Your task to perform on an android device: open chrome and create a bookmark for the current page Image 0: 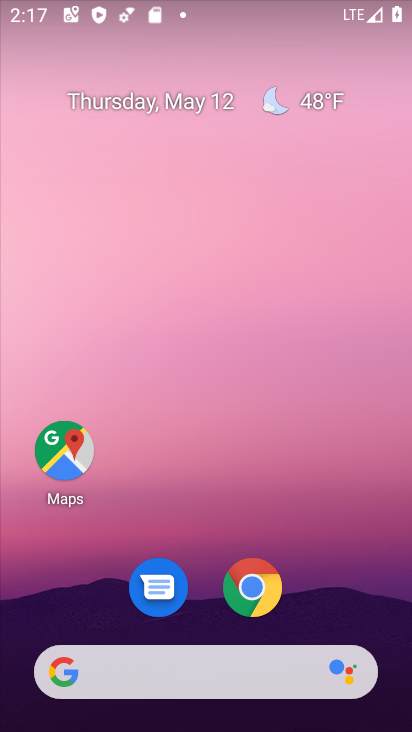
Step 0: drag from (341, 603) to (200, 22)
Your task to perform on an android device: open chrome and create a bookmark for the current page Image 1: 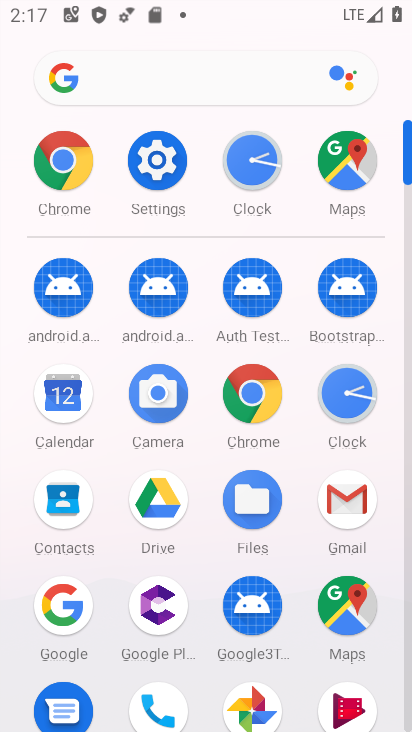
Step 1: click (259, 414)
Your task to perform on an android device: open chrome and create a bookmark for the current page Image 2: 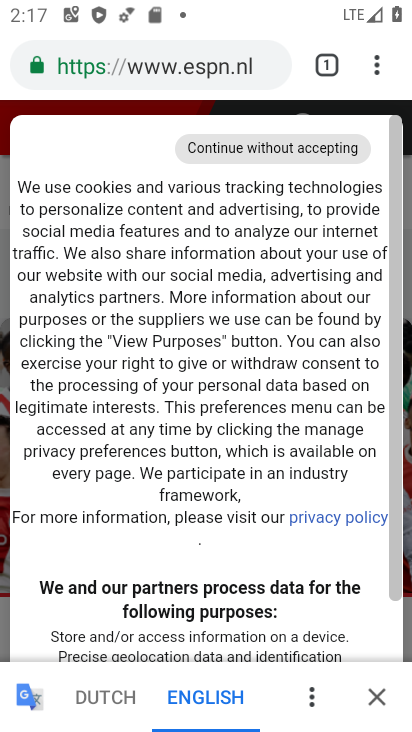
Step 2: click (234, 73)
Your task to perform on an android device: open chrome and create a bookmark for the current page Image 3: 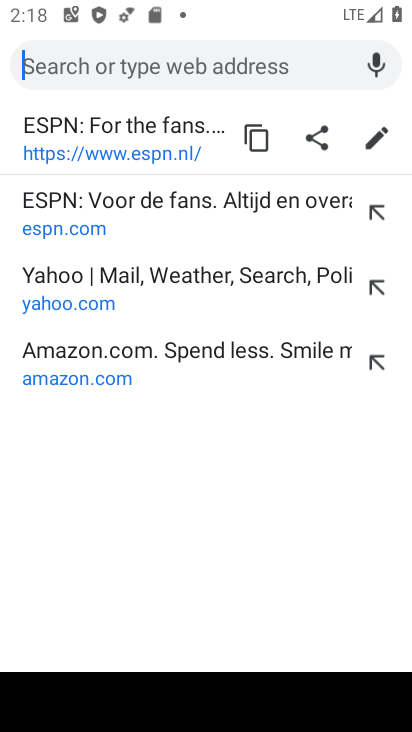
Step 3: type "ghool"
Your task to perform on an android device: open chrome and create a bookmark for the current page Image 4: 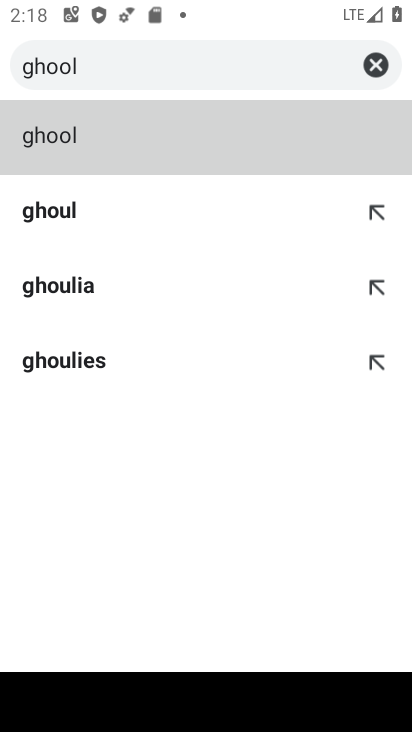
Step 4: click (139, 209)
Your task to perform on an android device: open chrome and create a bookmark for the current page Image 5: 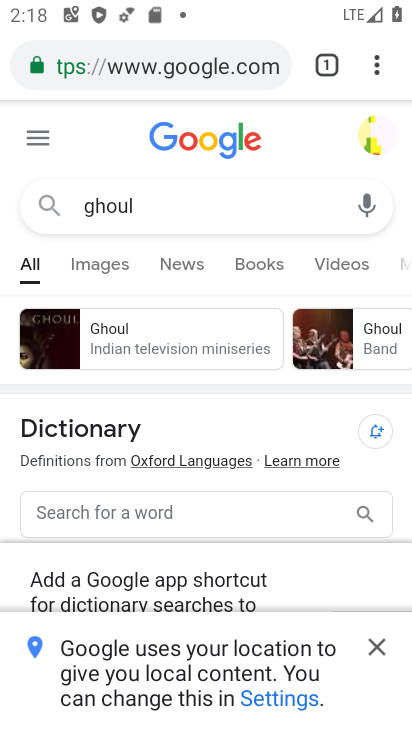
Step 5: drag from (150, 549) to (124, 338)
Your task to perform on an android device: open chrome and create a bookmark for the current page Image 6: 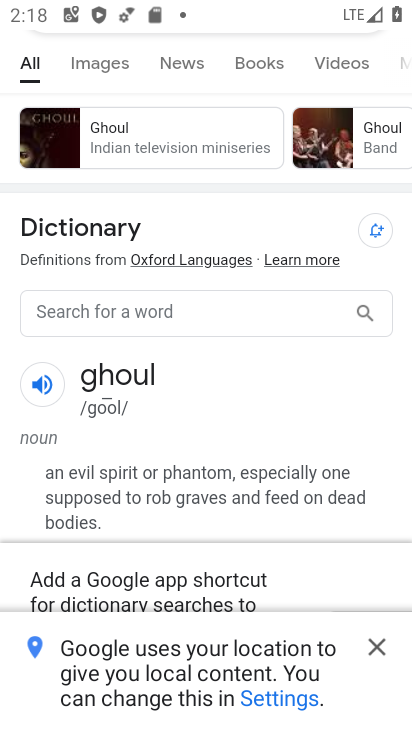
Step 6: drag from (159, 447) to (202, 93)
Your task to perform on an android device: open chrome and create a bookmark for the current page Image 7: 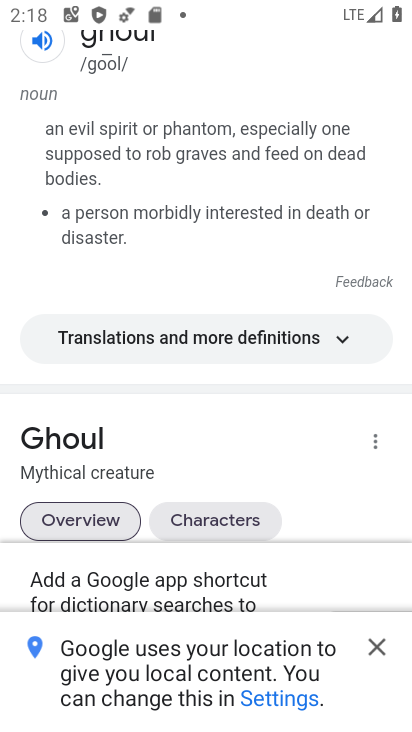
Step 7: drag from (151, 363) to (230, 110)
Your task to perform on an android device: open chrome and create a bookmark for the current page Image 8: 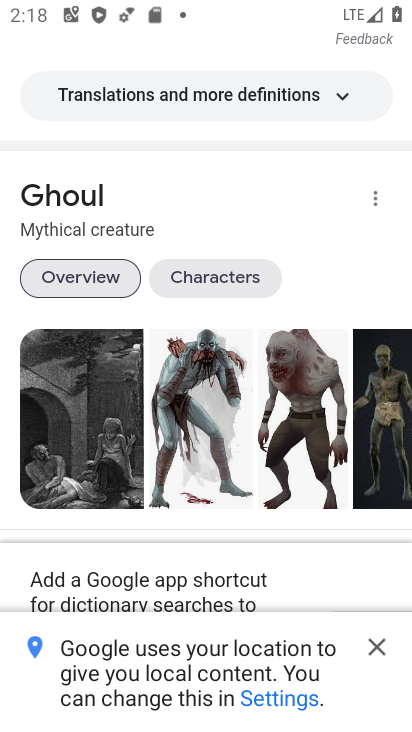
Step 8: drag from (181, 429) to (251, 64)
Your task to perform on an android device: open chrome and create a bookmark for the current page Image 9: 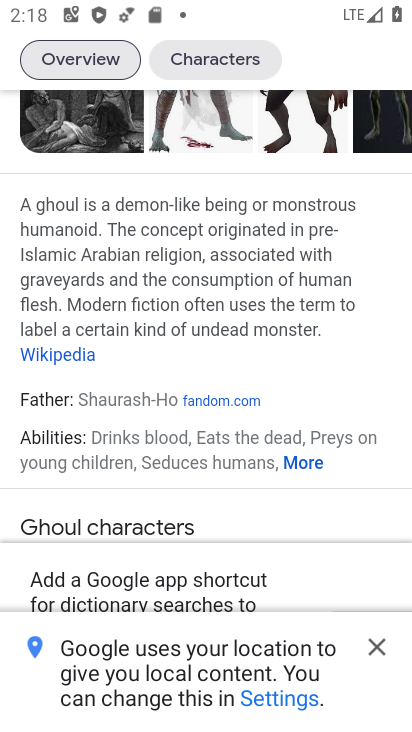
Step 9: drag from (160, 411) to (197, 144)
Your task to perform on an android device: open chrome and create a bookmark for the current page Image 10: 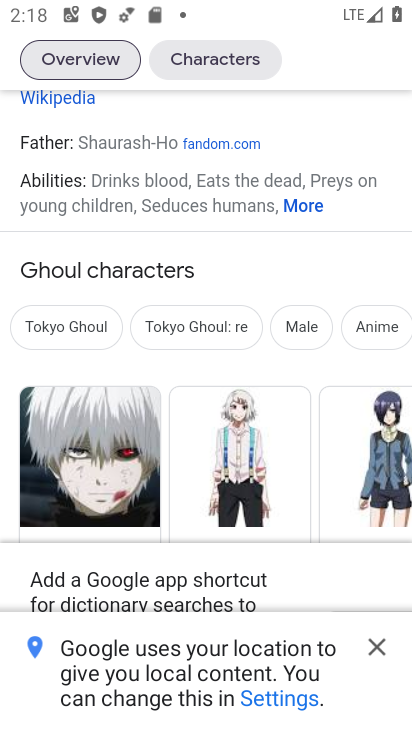
Step 10: drag from (162, 457) to (233, 118)
Your task to perform on an android device: open chrome and create a bookmark for the current page Image 11: 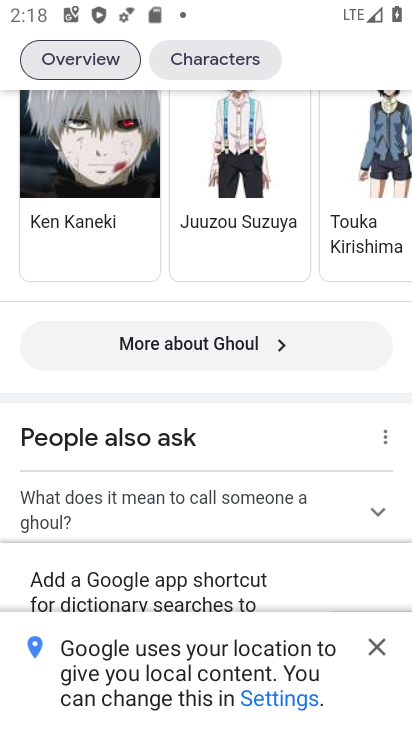
Step 11: drag from (154, 387) to (223, 68)
Your task to perform on an android device: open chrome and create a bookmark for the current page Image 12: 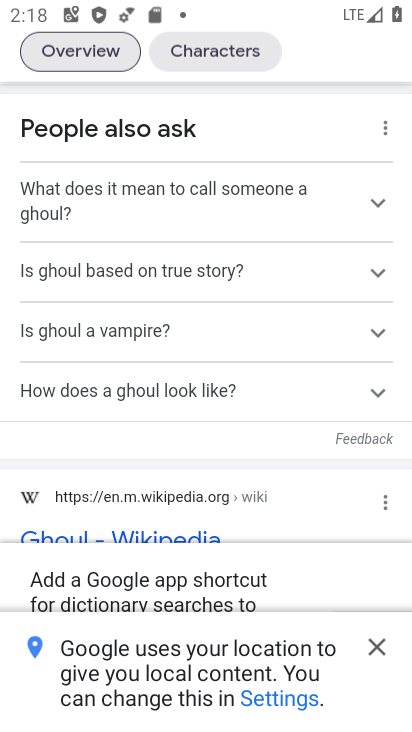
Step 12: drag from (181, 425) to (210, 205)
Your task to perform on an android device: open chrome and create a bookmark for the current page Image 13: 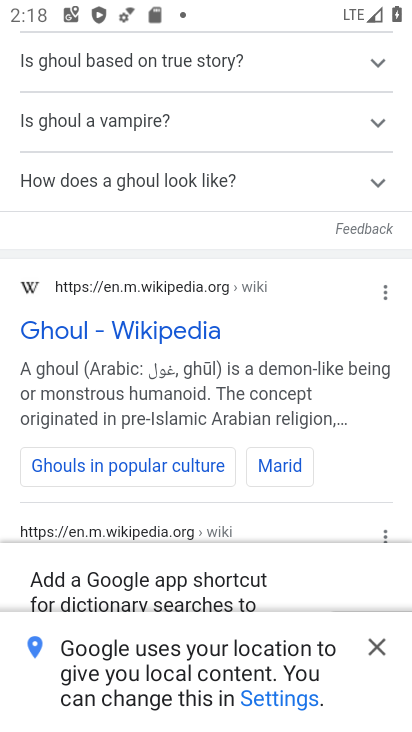
Step 13: click (144, 317)
Your task to perform on an android device: open chrome and create a bookmark for the current page Image 14: 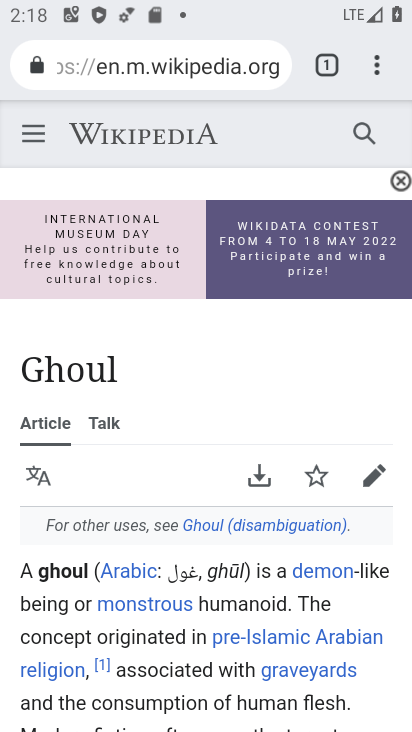
Step 14: click (381, 67)
Your task to perform on an android device: open chrome and create a bookmark for the current page Image 15: 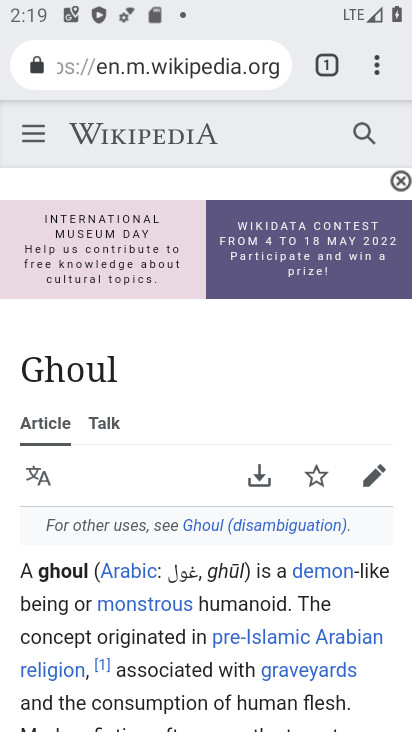
Step 15: click (380, 74)
Your task to perform on an android device: open chrome and create a bookmark for the current page Image 16: 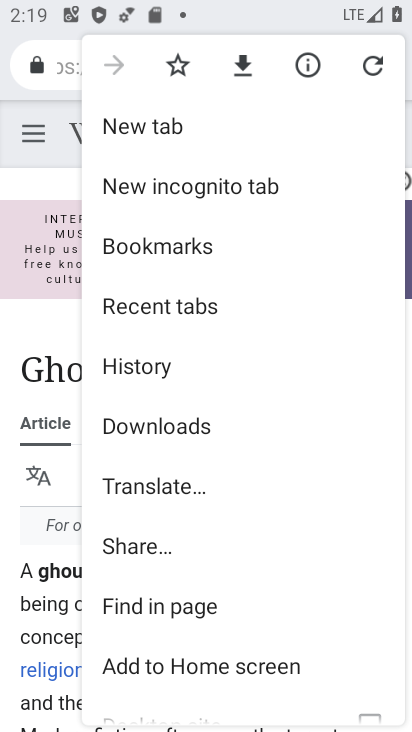
Step 16: click (179, 62)
Your task to perform on an android device: open chrome and create a bookmark for the current page Image 17: 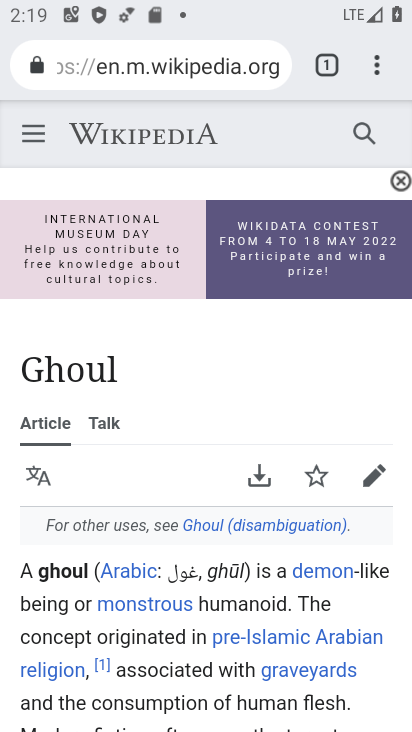
Step 17: task complete